Your task to perform on an android device: Open Google Maps Image 0: 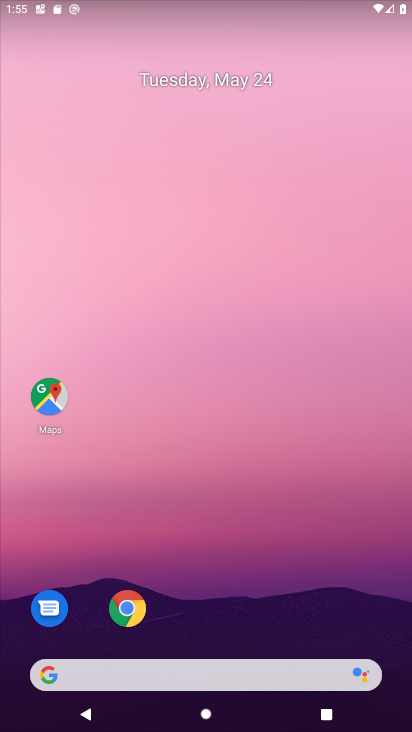
Step 0: click (53, 396)
Your task to perform on an android device: Open Google Maps Image 1: 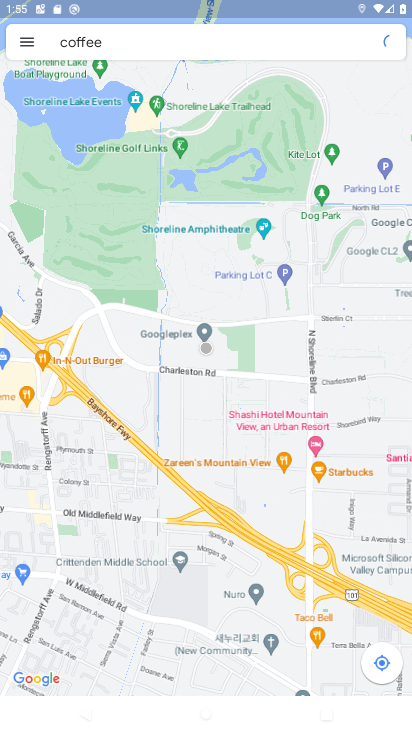
Step 1: task complete